Your task to perform on an android device: toggle notifications settings in the gmail app Image 0: 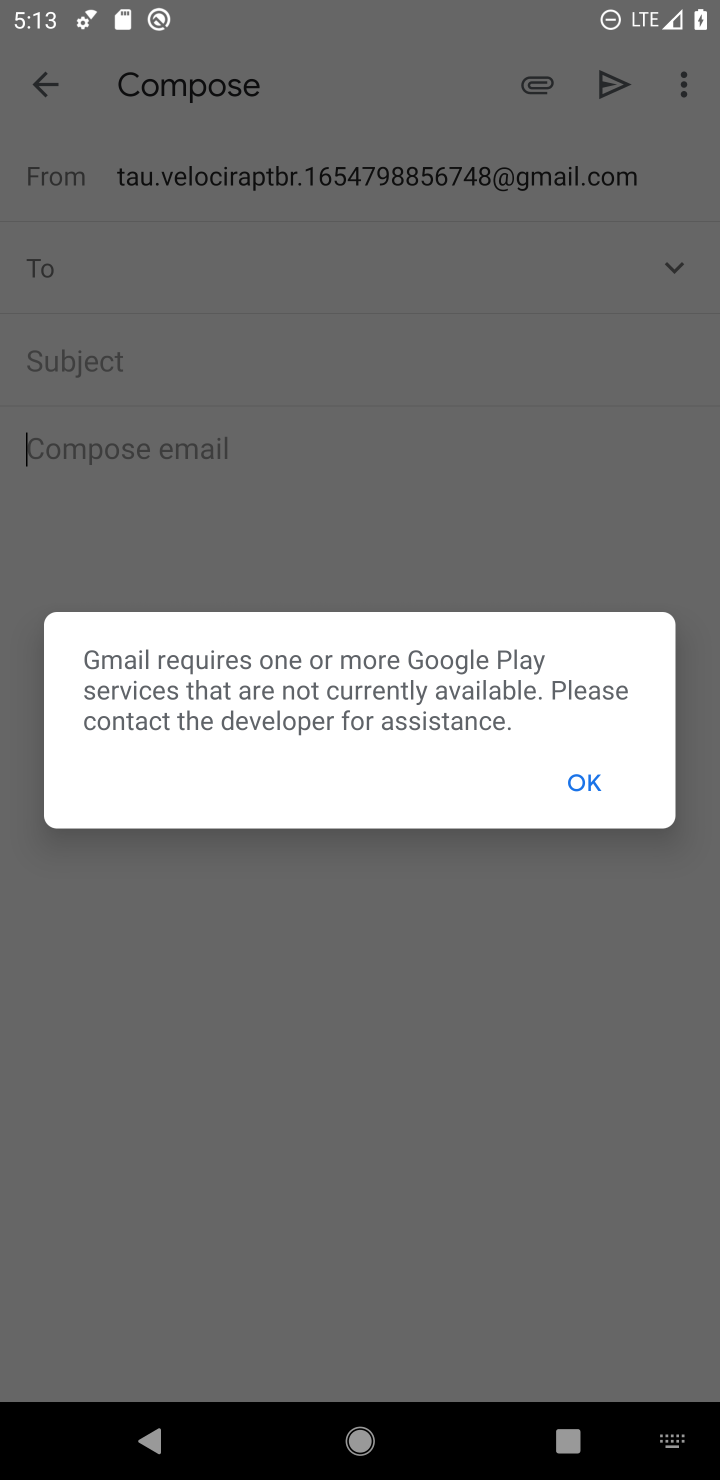
Step 0: press back button
Your task to perform on an android device: toggle notifications settings in the gmail app Image 1: 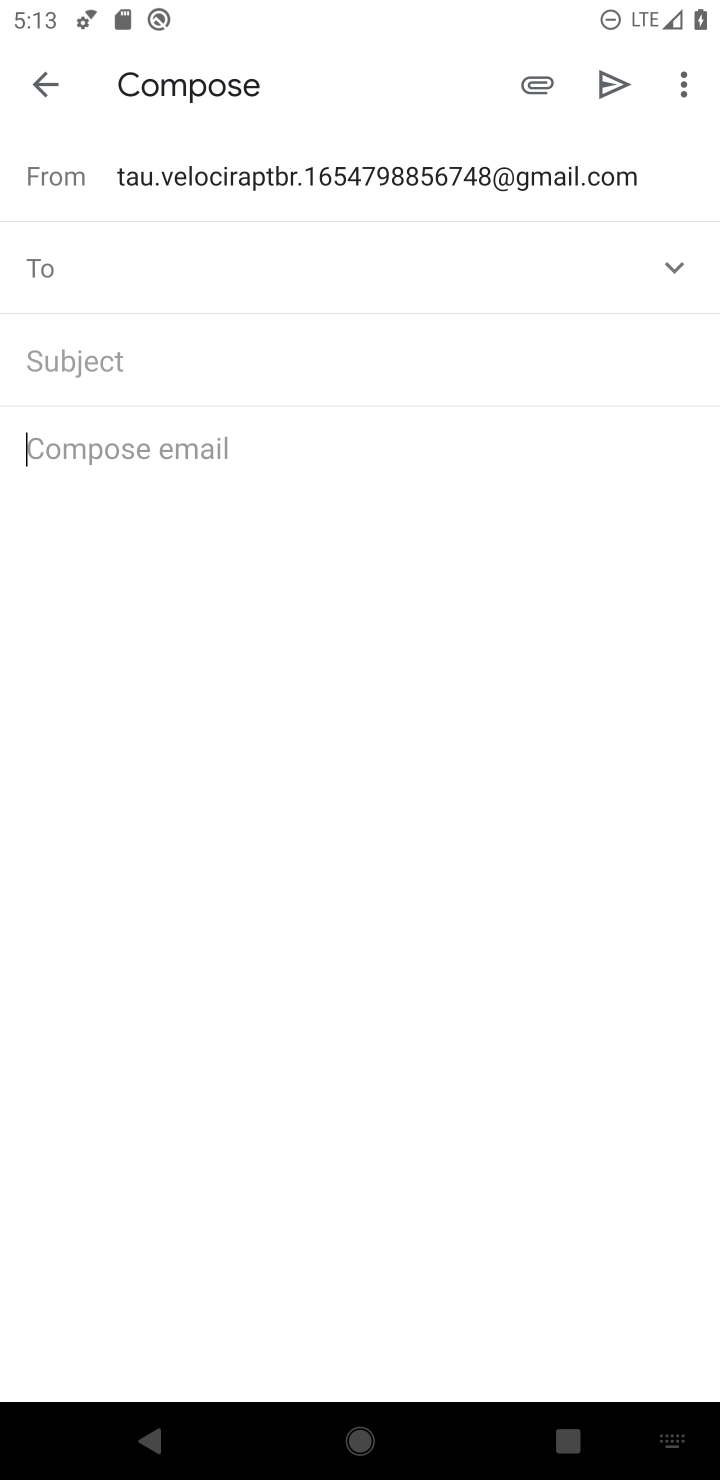
Step 1: press home button
Your task to perform on an android device: toggle notifications settings in the gmail app Image 2: 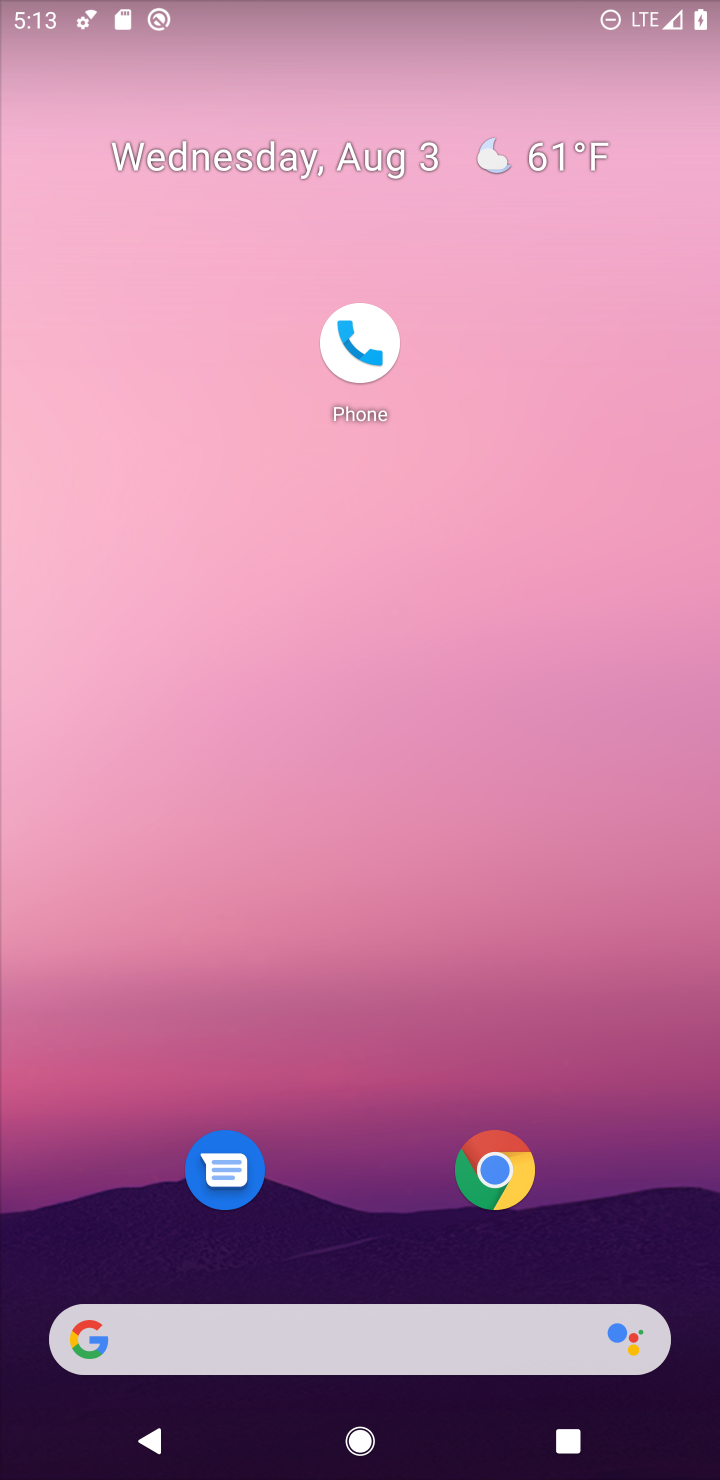
Step 2: drag from (226, 1104) to (196, 359)
Your task to perform on an android device: toggle notifications settings in the gmail app Image 3: 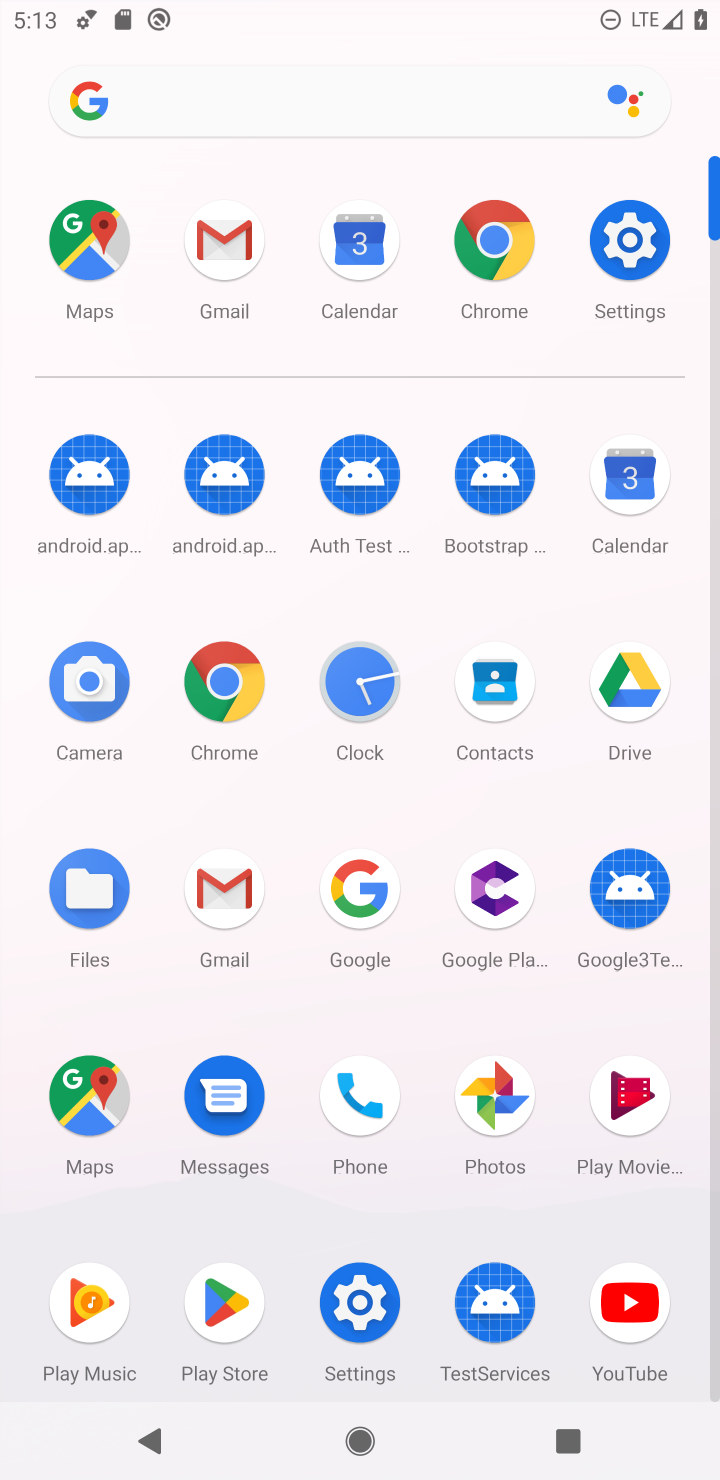
Step 3: click (212, 254)
Your task to perform on an android device: toggle notifications settings in the gmail app Image 4: 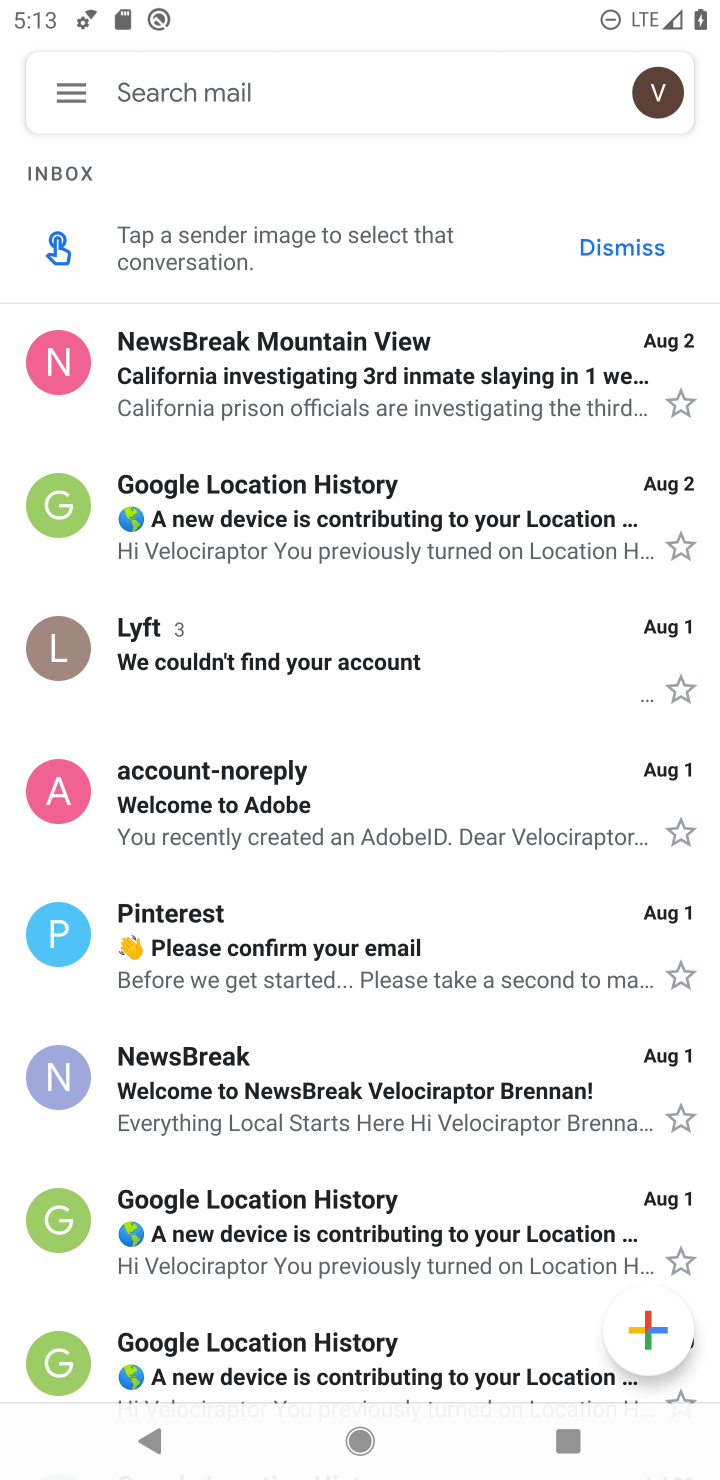
Step 4: click (72, 92)
Your task to perform on an android device: toggle notifications settings in the gmail app Image 5: 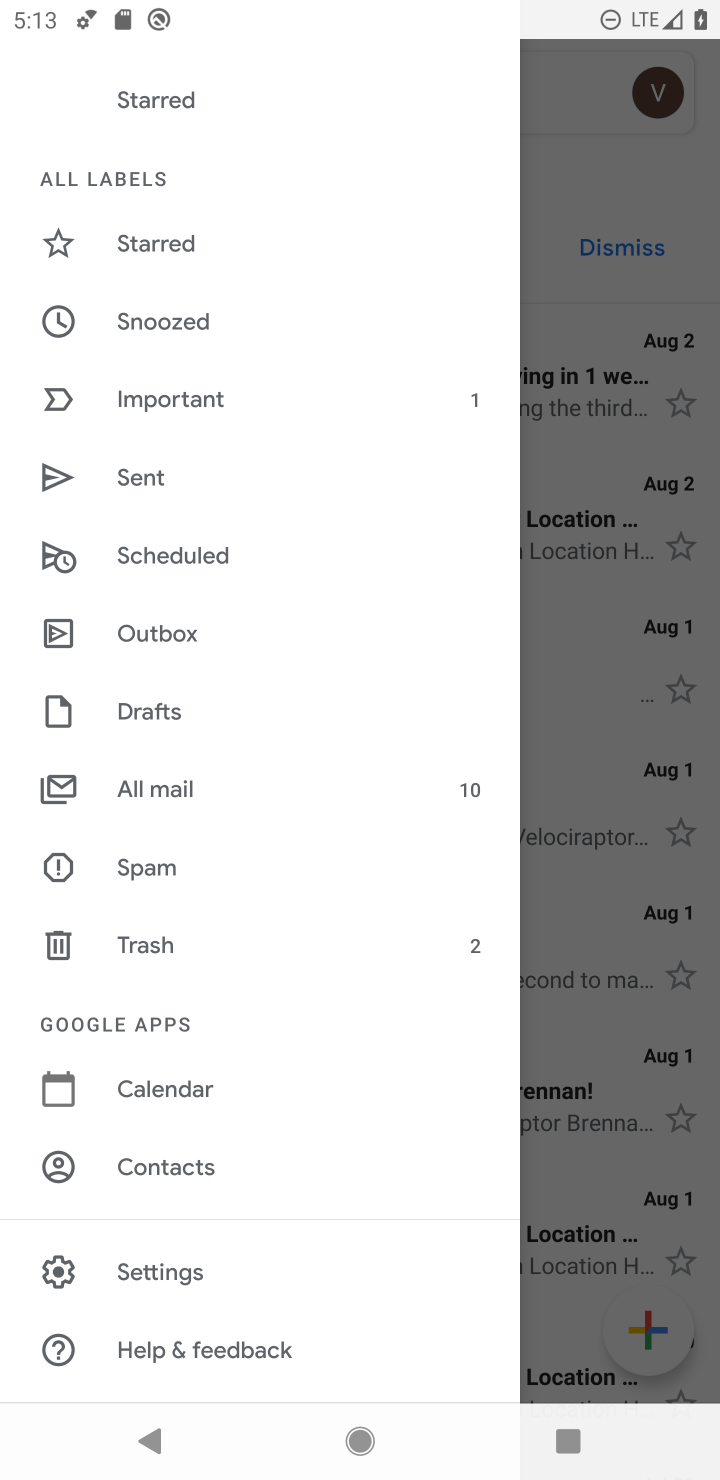
Step 5: click (159, 1281)
Your task to perform on an android device: toggle notifications settings in the gmail app Image 6: 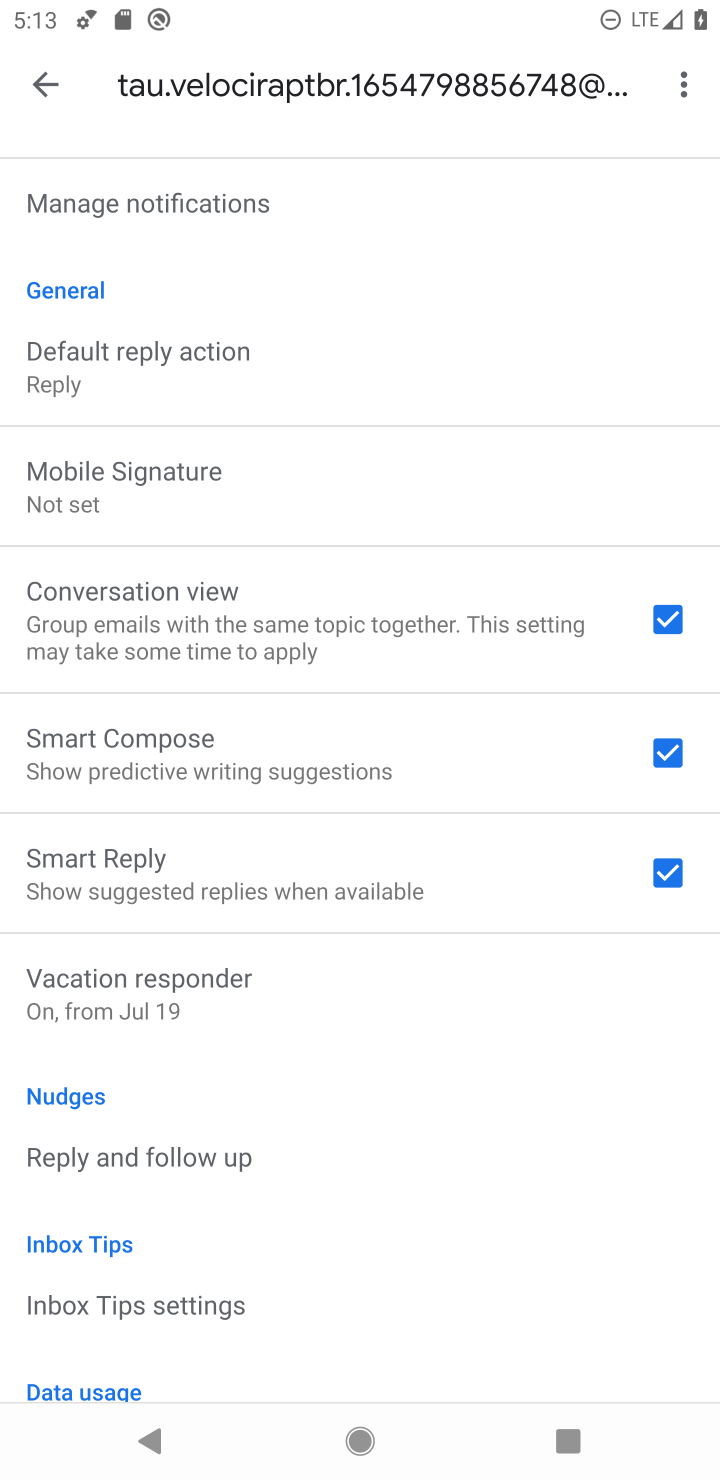
Step 6: drag from (231, 1191) to (264, 130)
Your task to perform on an android device: toggle notifications settings in the gmail app Image 7: 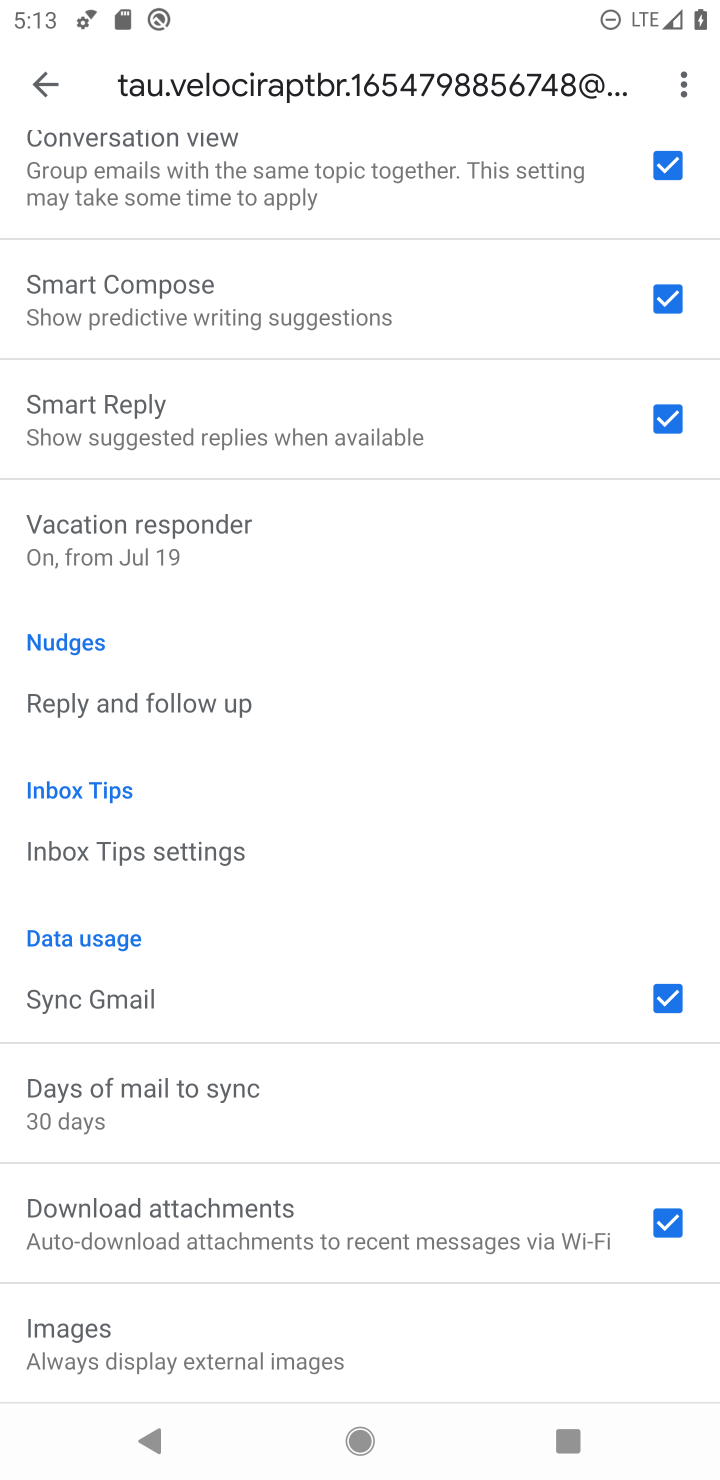
Step 7: drag from (243, 369) to (243, 1232)
Your task to perform on an android device: toggle notifications settings in the gmail app Image 8: 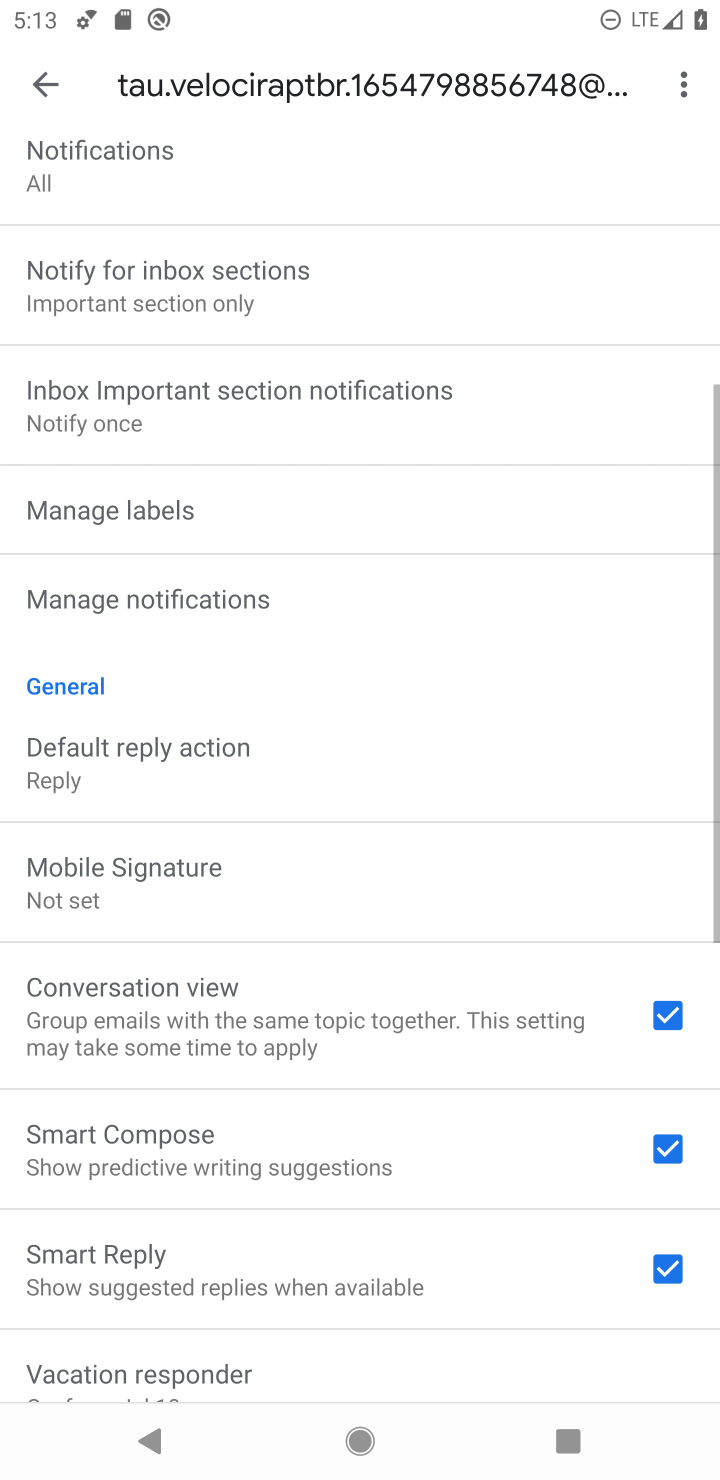
Step 8: click (191, 658)
Your task to perform on an android device: toggle notifications settings in the gmail app Image 9: 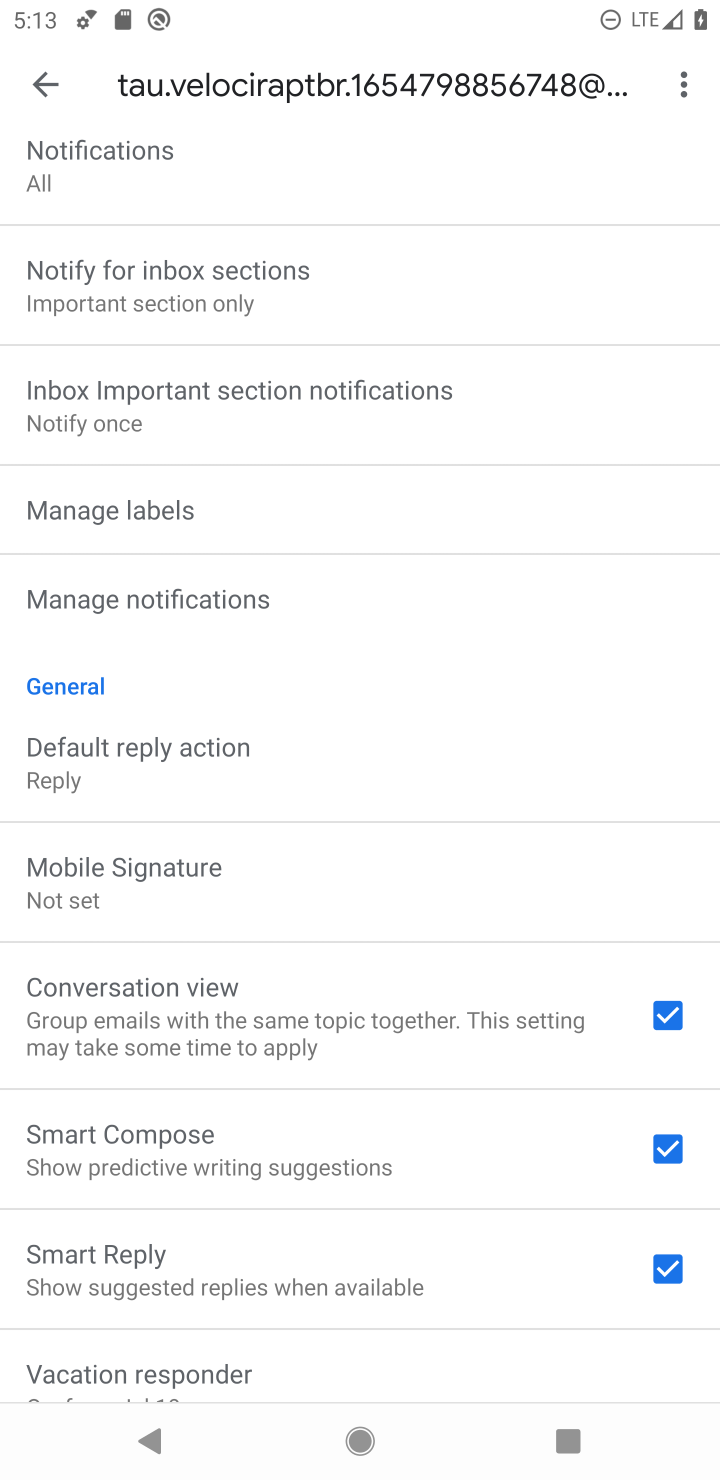
Step 9: click (201, 612)
Your task to perform on an android device: toggle notifications settings in the gmail app Image 10: 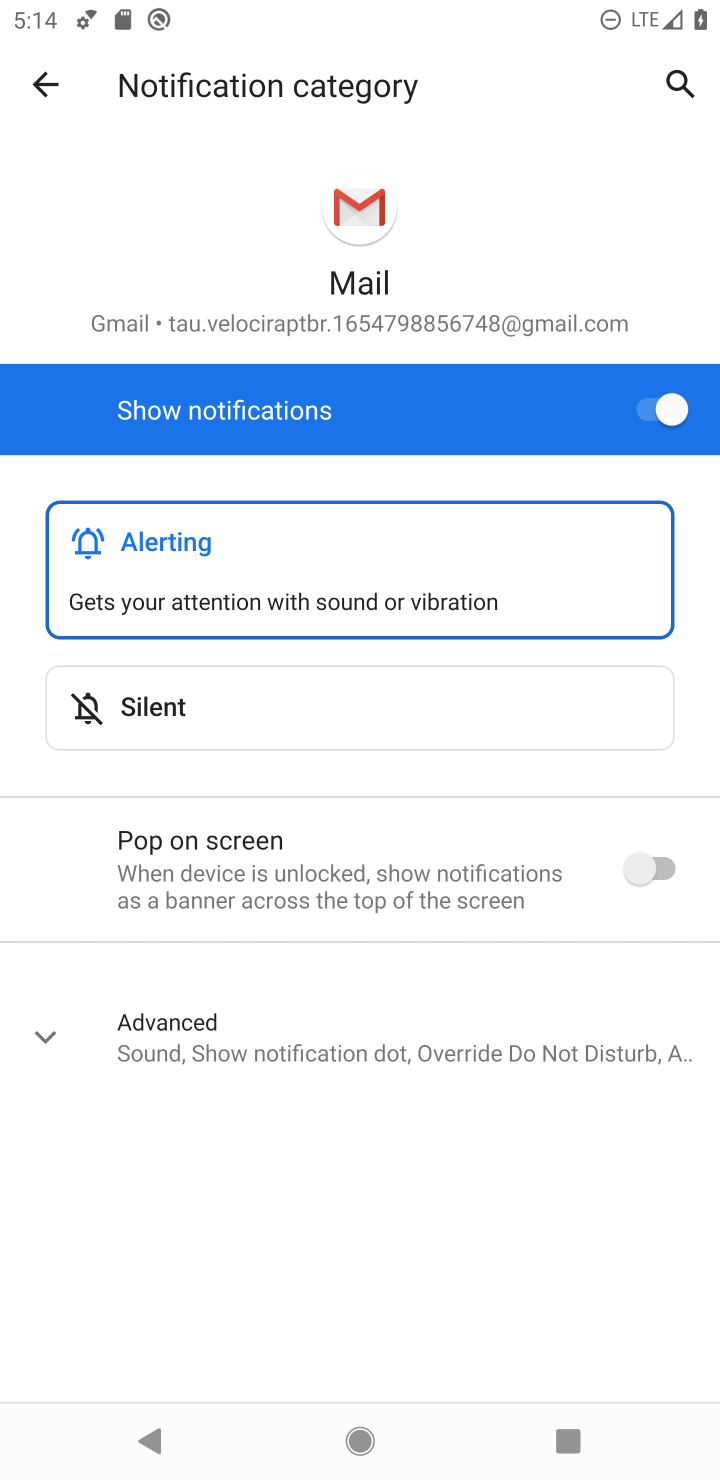
Step 10: click (649, 399)
Your task to perform on an android device: toggle notifications settings in the gmail app Image 11: 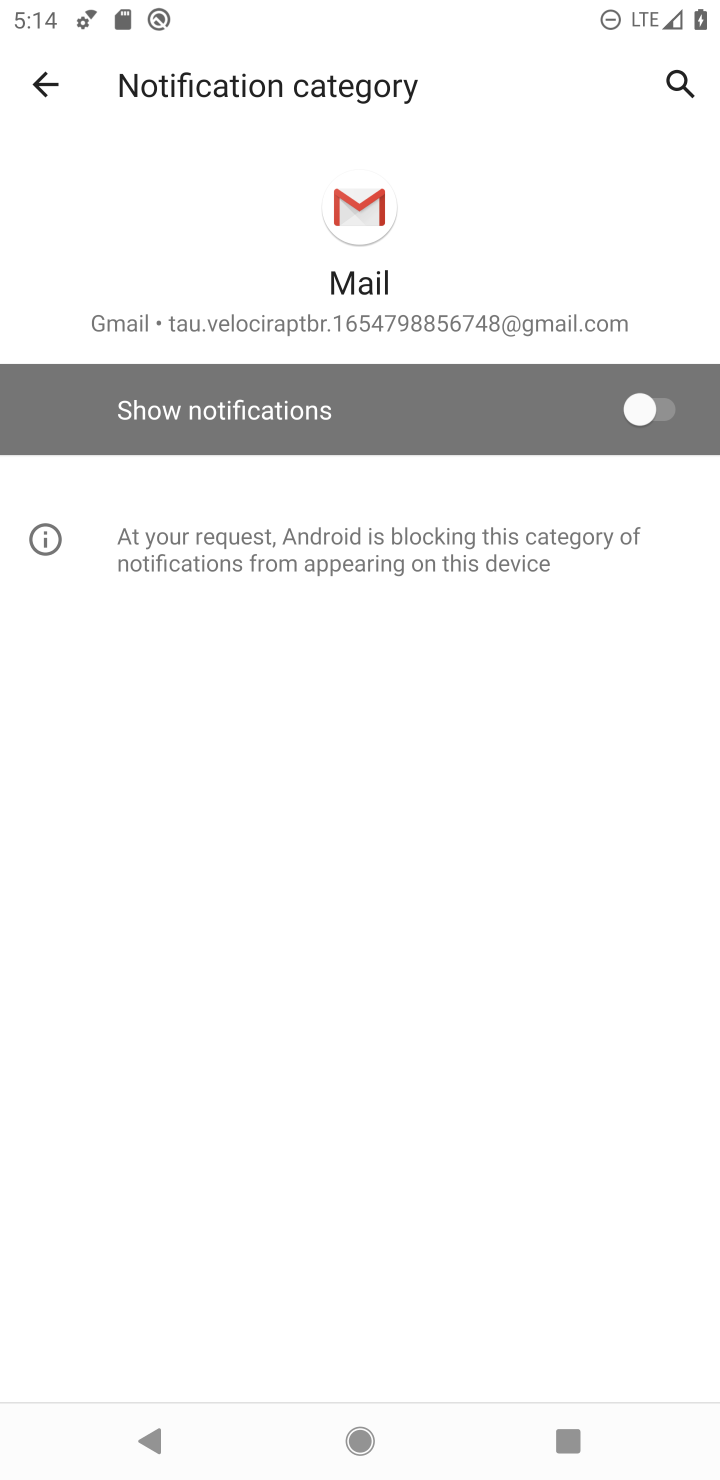
Step 11: task complete